Your task to perform on an android device: Open Chrome and go to settings Image 0: 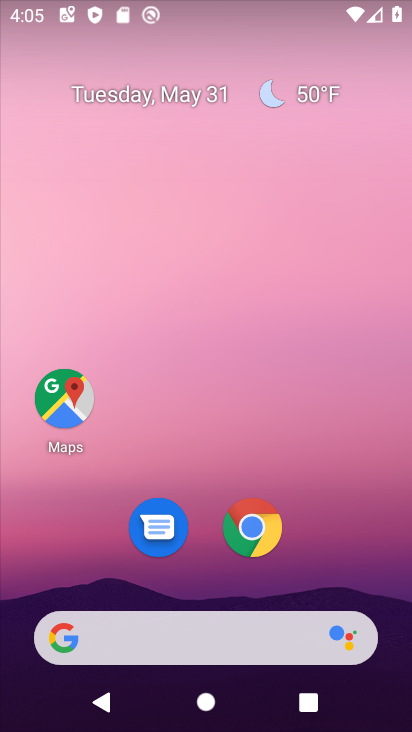
Step 0: click (276, 532)
Your task to perform on an android device: Open Chrome and go to settings Image 1: 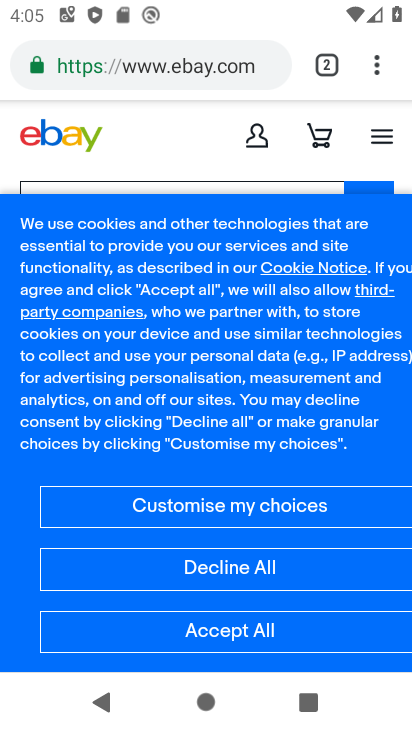
Step 1: click (392, 65)
Your task to perform on an android device: Open Chrome and go to settings Image 2: 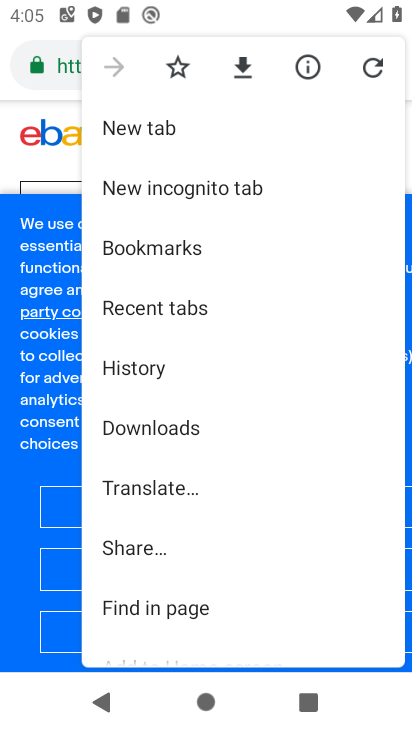
Step 2: drag from (251, 610) to (191, 202)
Your task to perform on an android device: Open Chrome and go to settings Image 3: 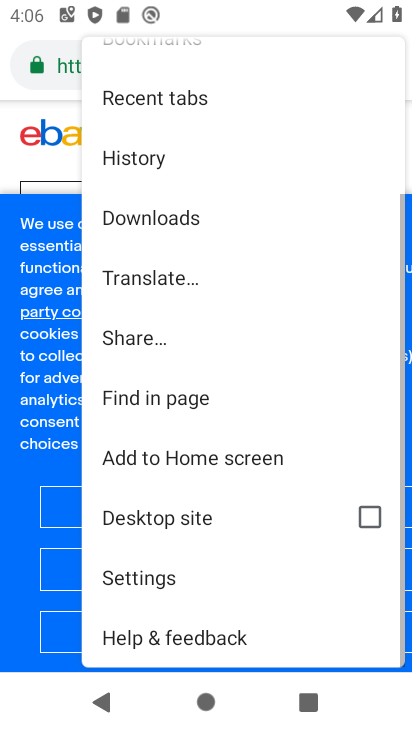
Step 3: click (192, 572)
Your task to perform on an android device: Open Chrome and go to settings Image 4: 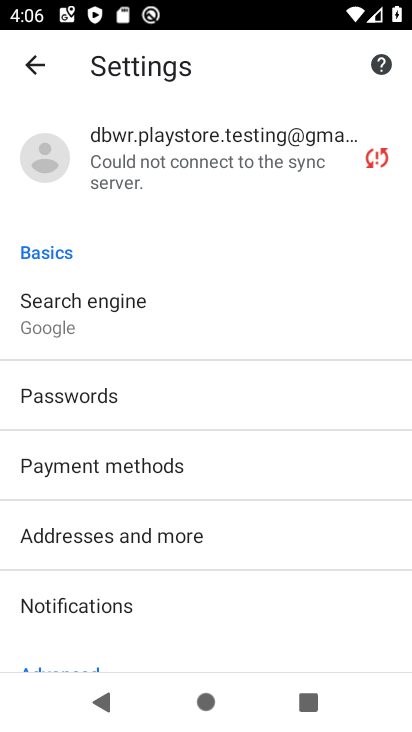
Step 4: task complete